Your task to perform on an android device: all mails in gmail Image 0: 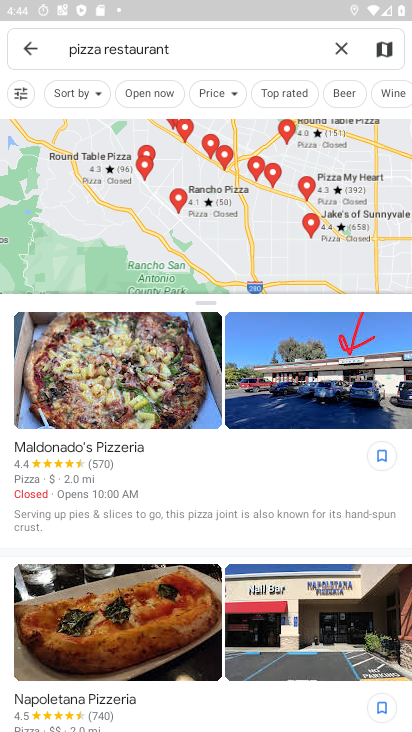
Step 0: press back button
Your task to perform on an android device: all mails in gmail Image 1: 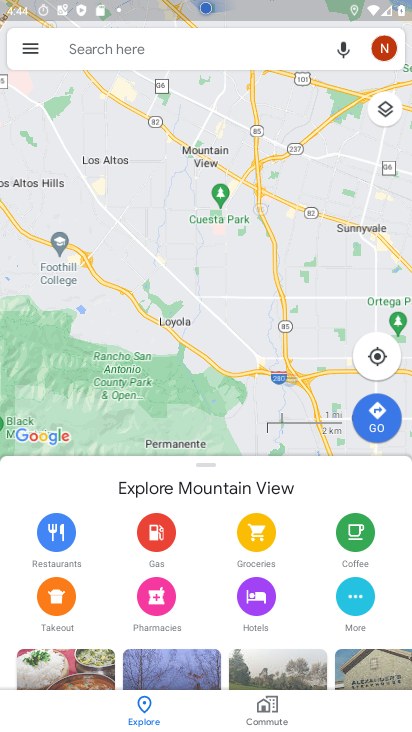
Step 1: press home button
Your task to perform on an android device: all mails in gmail Image 2: 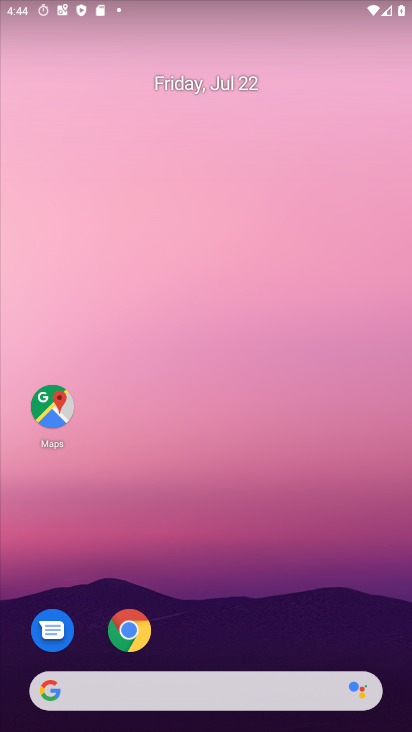
Step 2: drag from (285, 689) to (191, 2)
Your task to perform on an android device: all mails in gmail Image 3: 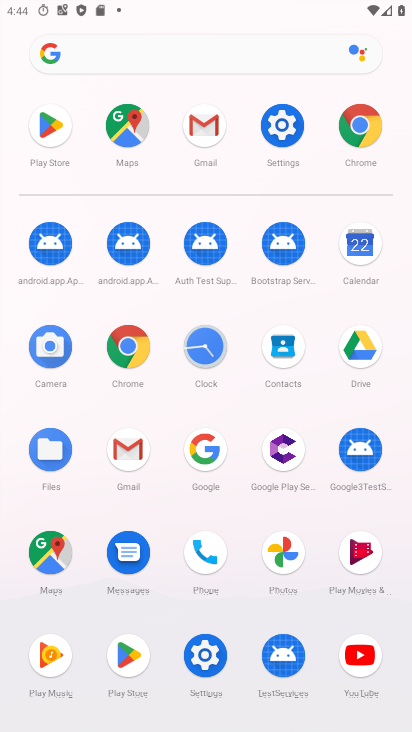
Step 3: click (121, 444)
Your task to perform on an android device: all mails in gmail Image 4: 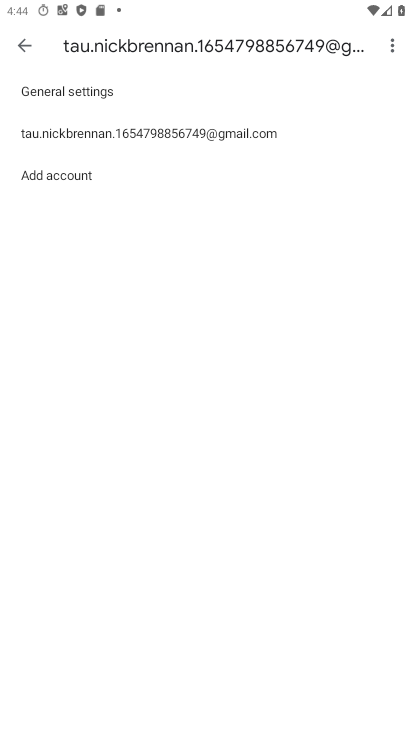
Step 4: press back button
Your task to perform on an android device: all mails in gmail Image 5: 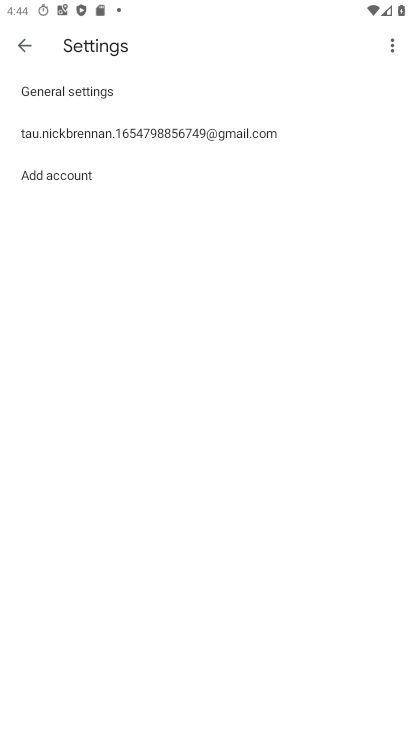
Step 5: press back button
Your task to perform on an android device: all mails in gmail Image 6: 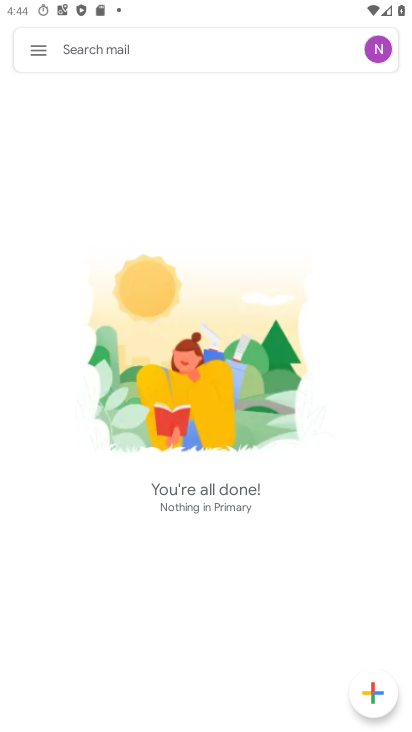
Step 6: click (34, 48)
Your task to perform on an android device: all mails in gmail Image 7: 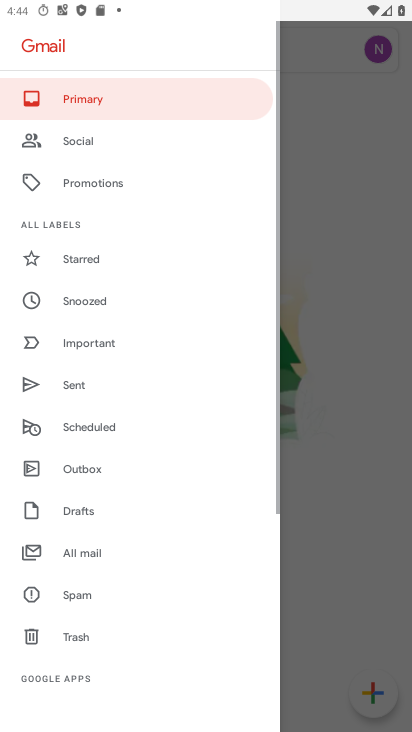
Step 7: click (78, 553)
Your task to perform on an android device: all mails in gmail Image 8: 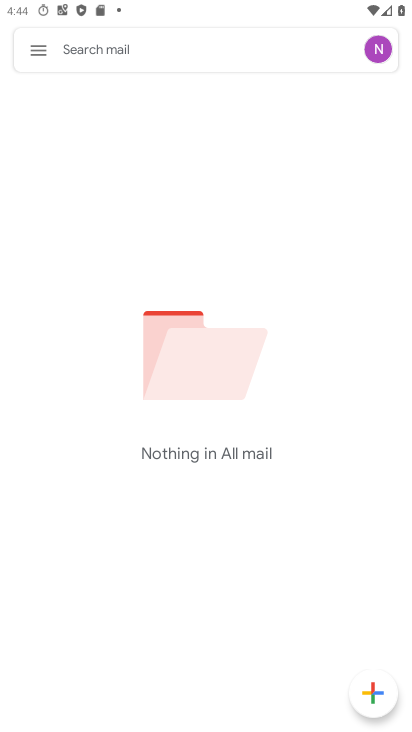
Step 8: click (44, 43)
Your task to perform on an android device: all mails in gmail Image 9: 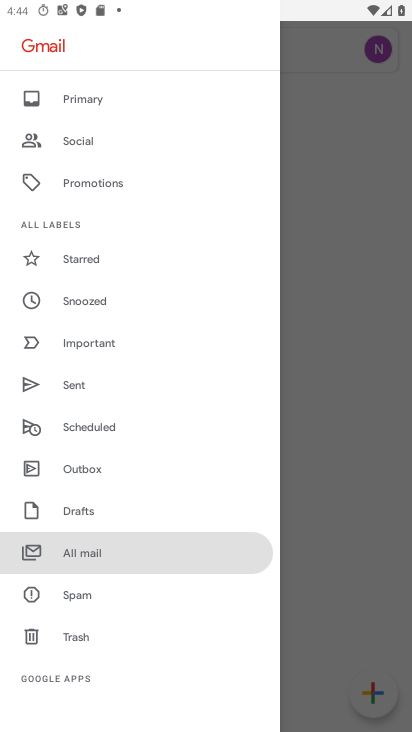
Step 9: task complete